Your task to perform on an android device: change text size in settings app Image 0: 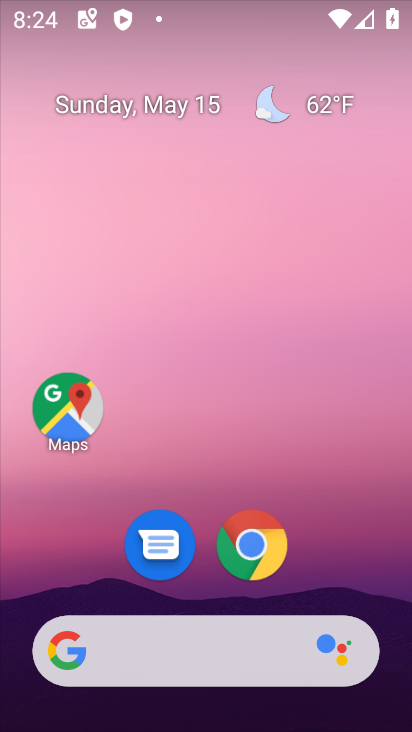
Step 0: drag from (321, 595) to (354, 124)
Your task to perform on an android device: change text size in settings app Image 1: 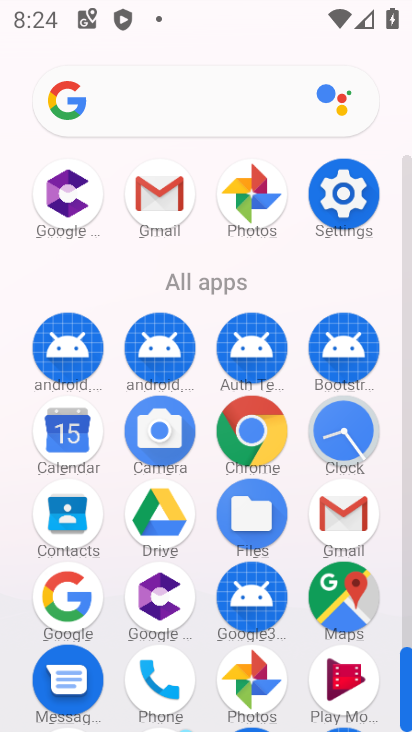
Step 1: click (341, 193)
Your task to perform on an android device: change text size in settings app Image 2: 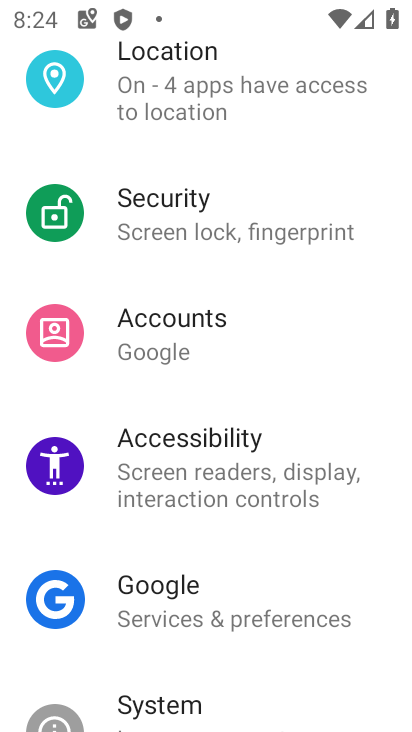
Step 2: drag from (211, 336) to (65, 725)
Your task to perform on an android device: change text size in settings app Image 3: 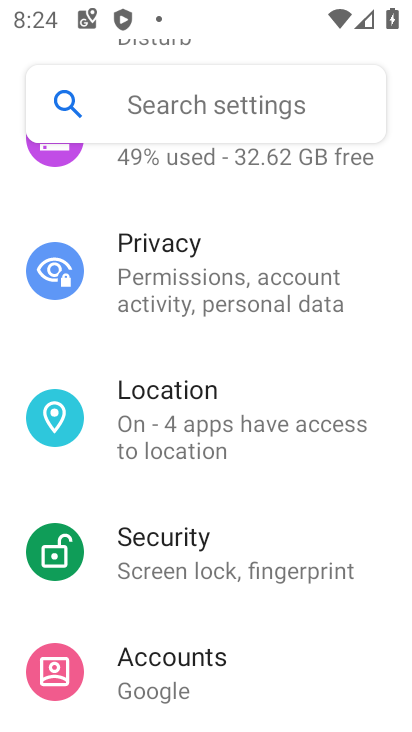
Step 3: drag from (231, 374) to (227, 728)
Your task to perform on an android device: change text size in settings app Image 4: 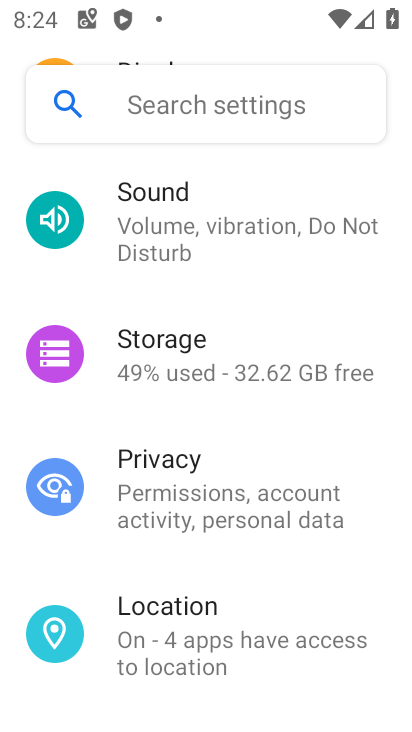
Step 4: drag from (253, 272) to (211, 580)
Your task to perform on an android device: change text size in settings app Image 5: 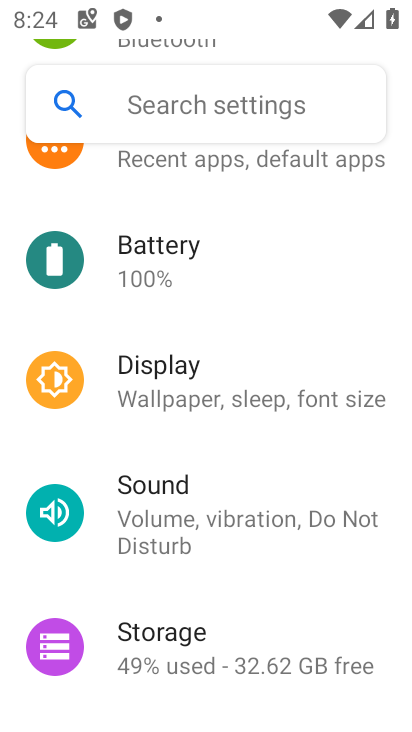
Step 5: click (156, 385)
Your task to perform on an android device: change text size in settings app Image 6: 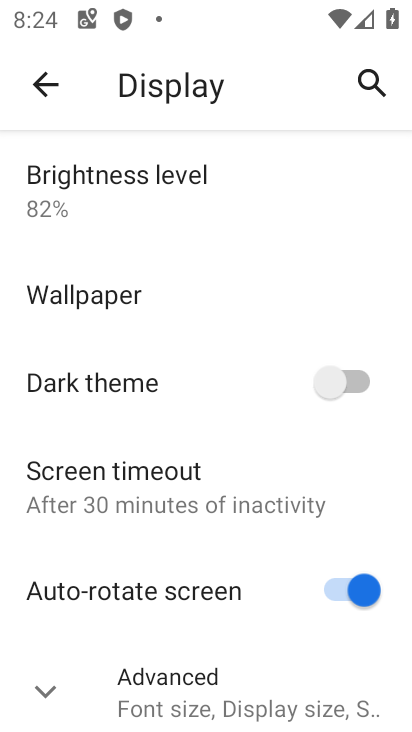
Step 6: drag from (208, 676) to (212, 309)
Your task to perform on an android device: change text size in settings app Image 7: 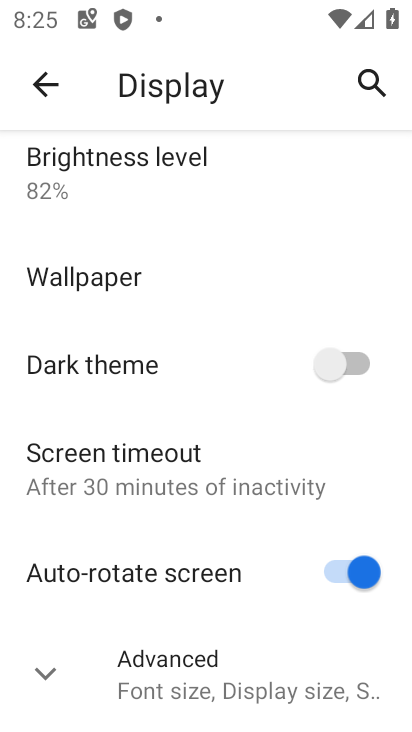
Step 7: click (96, 717)
Your task to perform on an android device: change text size in settings app Image 8: 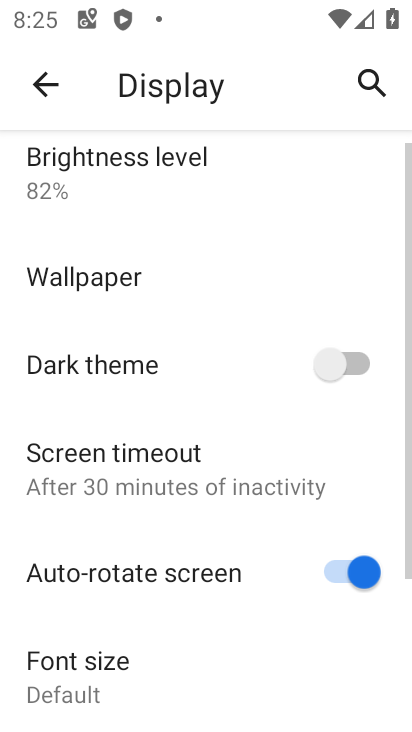
Step 8: click (97, 699)
Your task to perform on an android device: change text size in settings app Image 9: 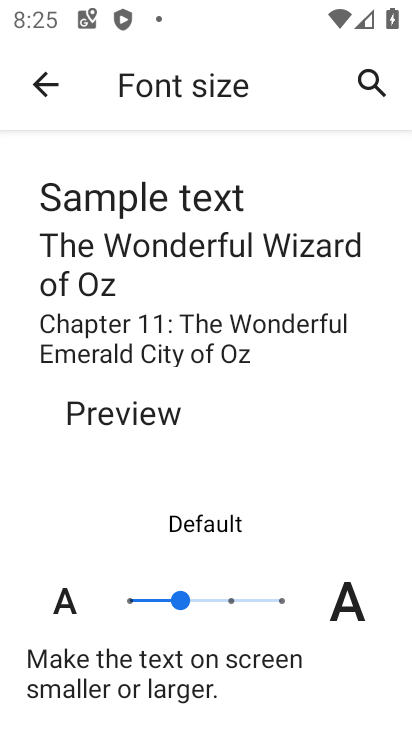
Step 9: click (215, 598)
Your task to perform on an android device: change text size in settings app Image 10: 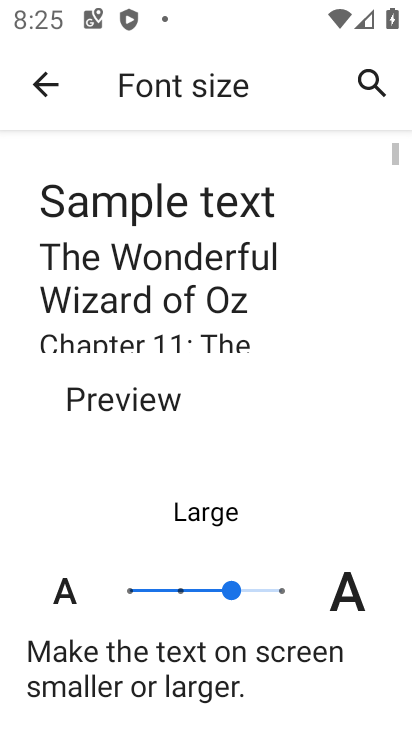
Step 10: task complete